Your task to perform on an android device: Show me popular games on the Play Store Image 0: 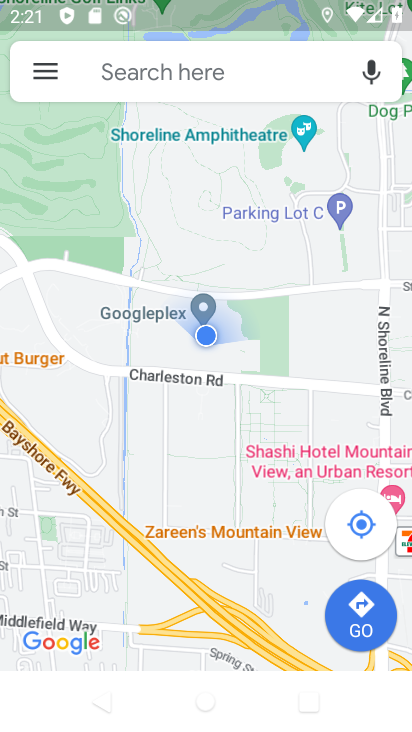
Step 0: press home button
Your task to perform on an android device: Show me popular games on the Play Store Image 1: 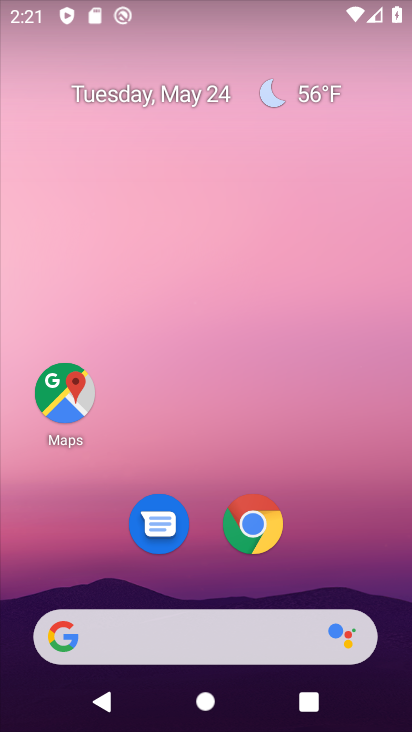
Step 1: drag from (210, 452) to (198, 104)
Your task to perform on an android device: Show me popular games on the Play Store Image 2: 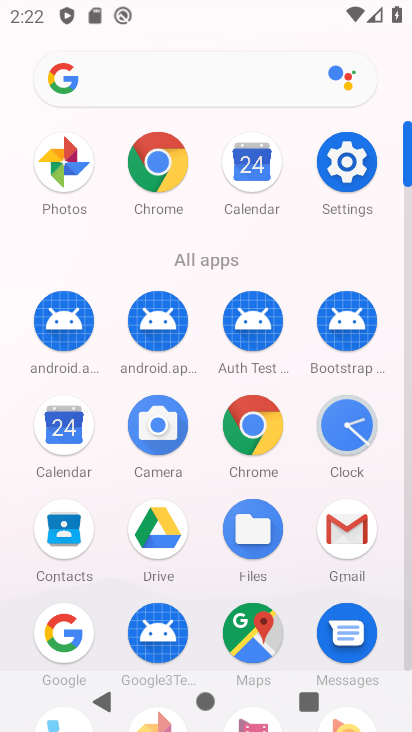
Step 2: drag from (202, 379) to (228, 96)
Your task to perform on an android device: Show me popular games on the Play Store Image 3: 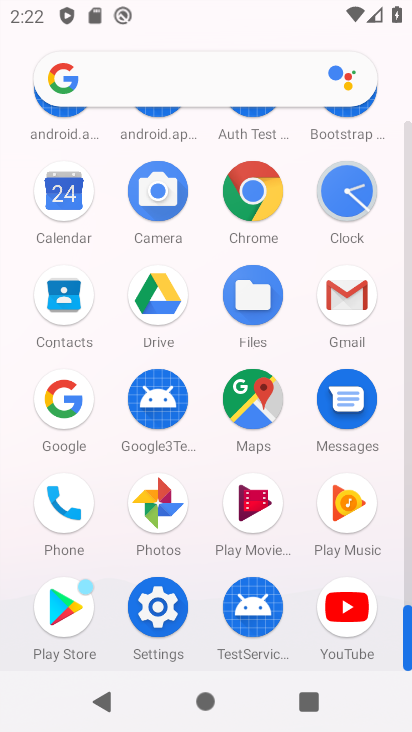
Step 3: click (60, 588)
Your task to perform on an android device: Show me popular games on the Play Store Image 4: 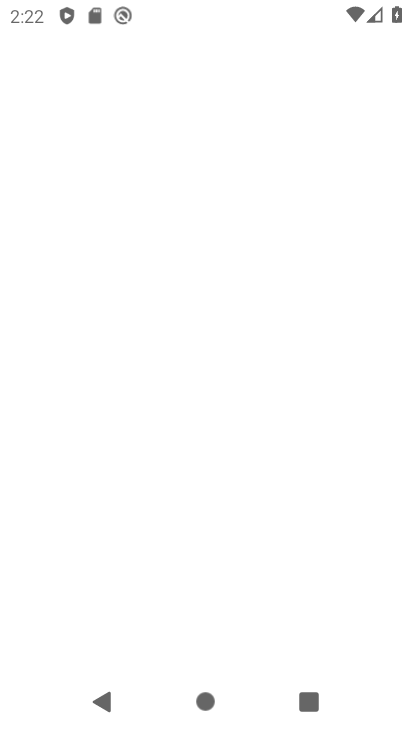
Step 4: drag from (217, 568) to (253, 247)
Your task to perform on an android device: Show me popular games on the Play Store Image 5: 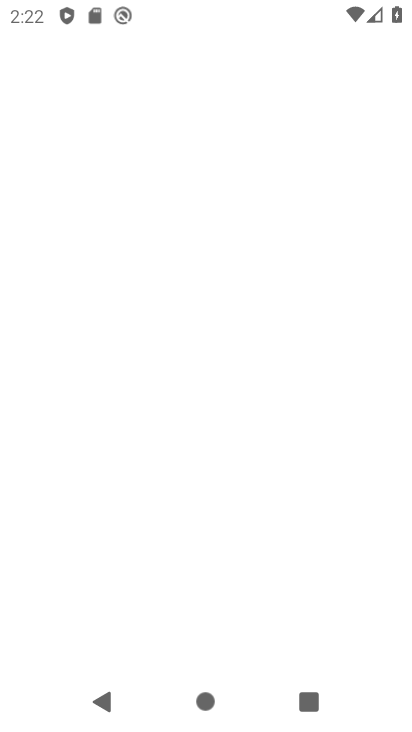
Step 5: drag from (253, 274) to (263, 531)
Your task to perform on an android device: Show me popular games on the Play Store Image 6: 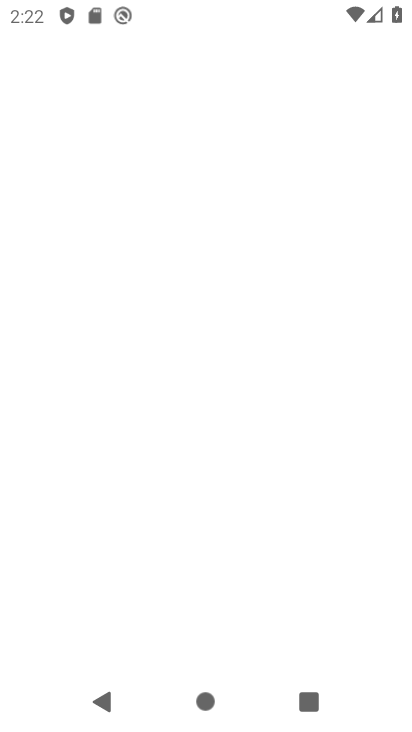
Step 6: press home button
Your task to perform on an android device: Show me popular games on the Play Store Image 7: 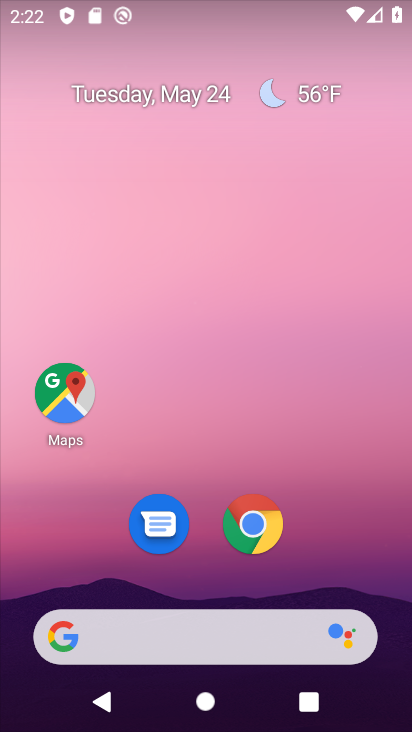
Step 7: drag from (211, 561) to (226, 163)
Your task to perform on an android device: Show me popular games on the Play Store Image 8: 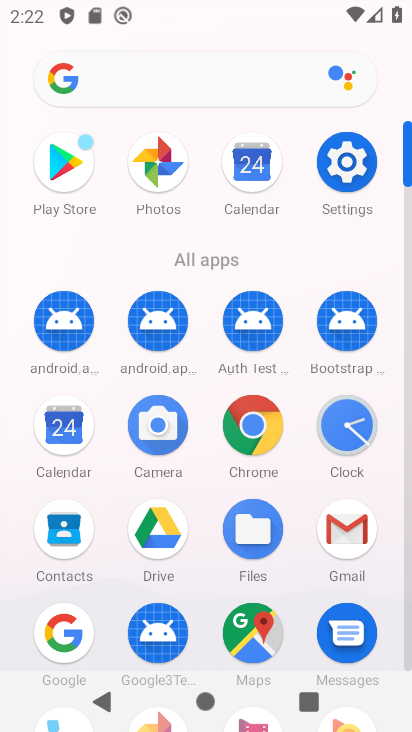
Step 8: drag from (176, 504) to (220, 151)
Your task to perform on an android device: Show me popular games on the Play Store Image 9: 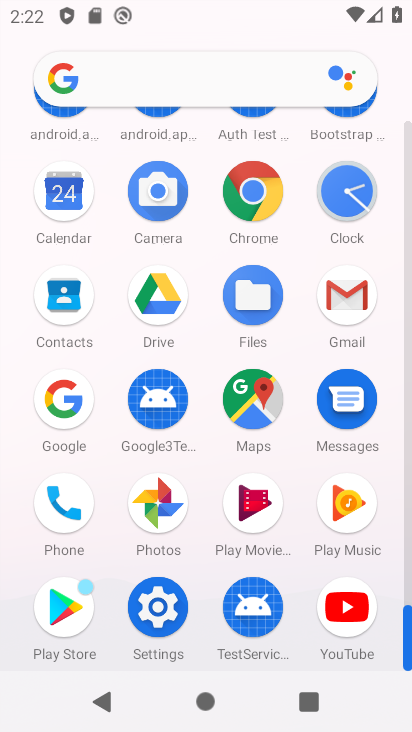
Step 9: click (63, 593)
Your task to perform on an android device: Show me popular games on the Play Store Image 10: 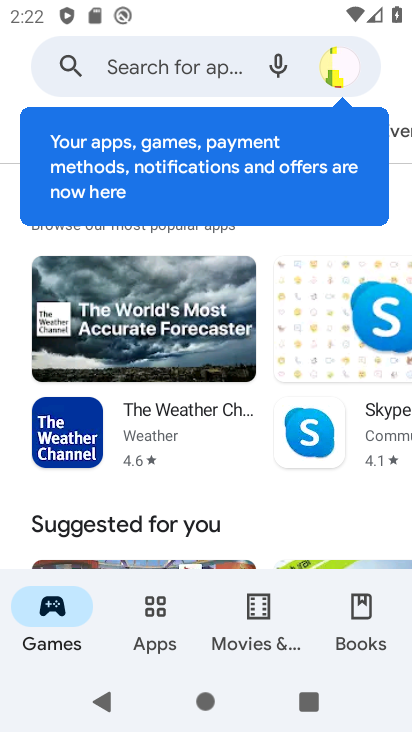
Step 10: click (56, 614)
Your task to perform on an android device: Show me popular games on the Play Store Image 11: 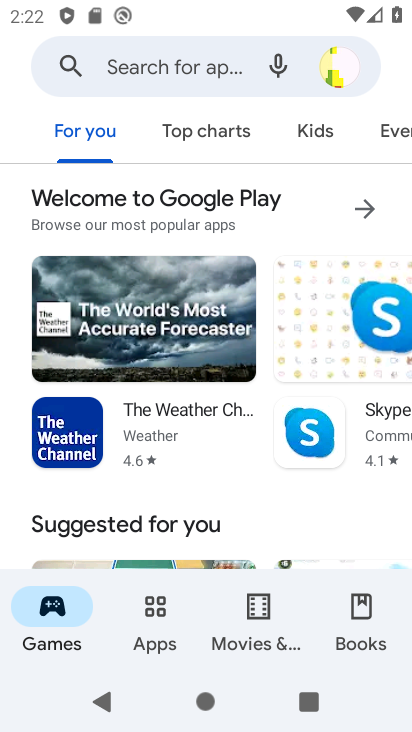
Step 11: drag from (219, 465) to (290, 166)
Your task to perform on an android device: Show me popular games on the Play Store Image 12: 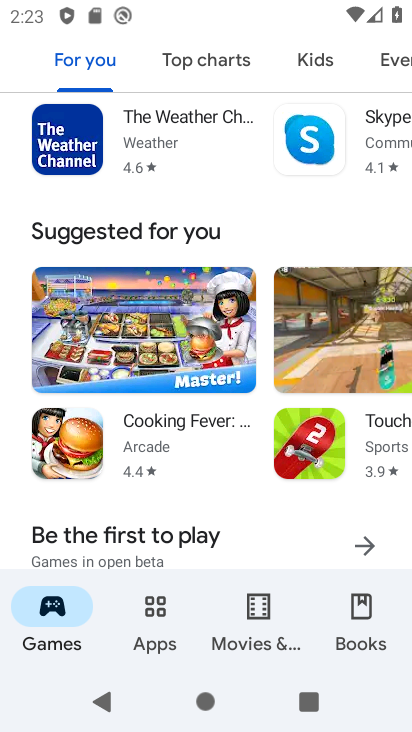
Step 12: drag from (208, 448) to (228, 80)
Your task to perform on an android device: Show me popular games on the Play Store Image 13: 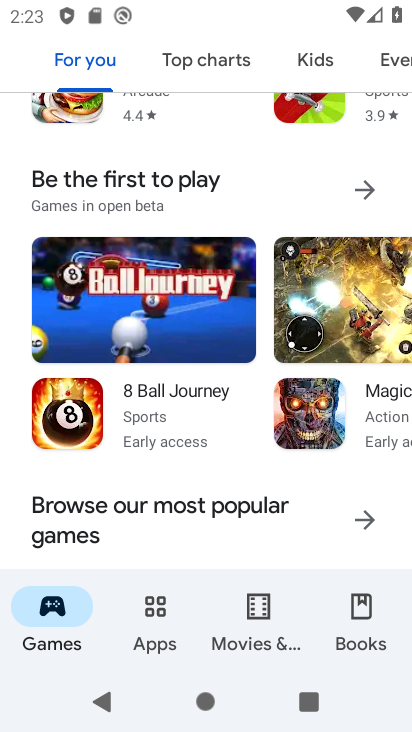
Step 13: click (365, 510)
Your task to perform on an android device: Show me popular games on the Play Store Image 14: 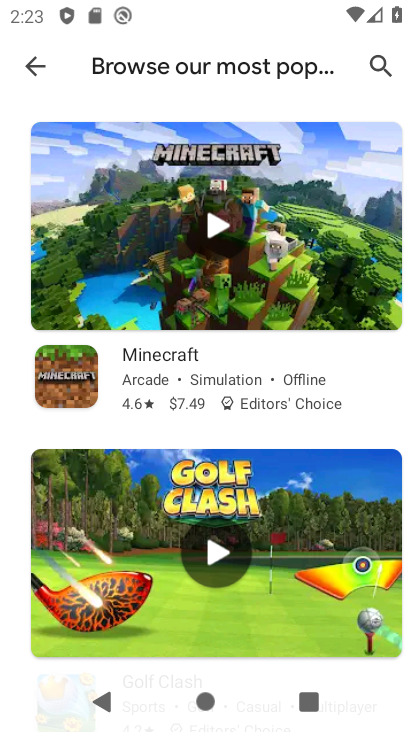
Step 14: task complete